Your task to perform on an android device: Open maps Image 0: 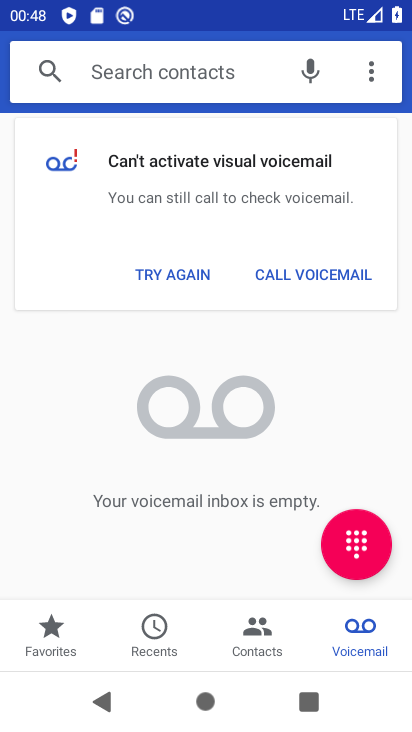
Step 0: press home button
Your task to perform on an android device: Open maps Image 1: 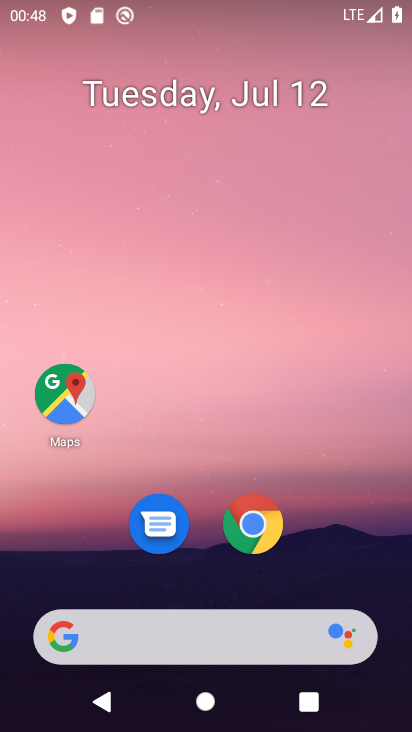
Step 1: click (71, 405)
Your task to perform on an android device: Open maps Image 2: 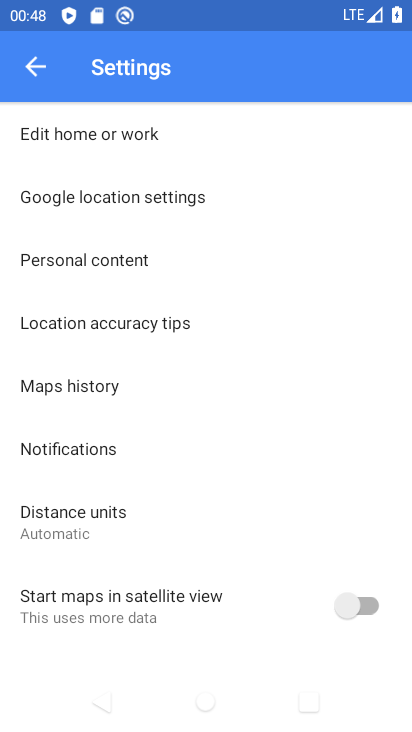
Step 2: click (41, 64)
Your task to perform on an android device: Open maps Image 3: 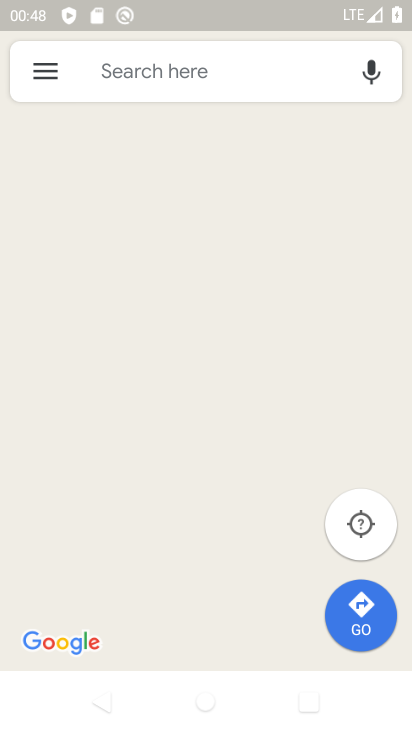
Step 3: click (109, 55)
Your task to perform on an android device: Open maps Image 4: 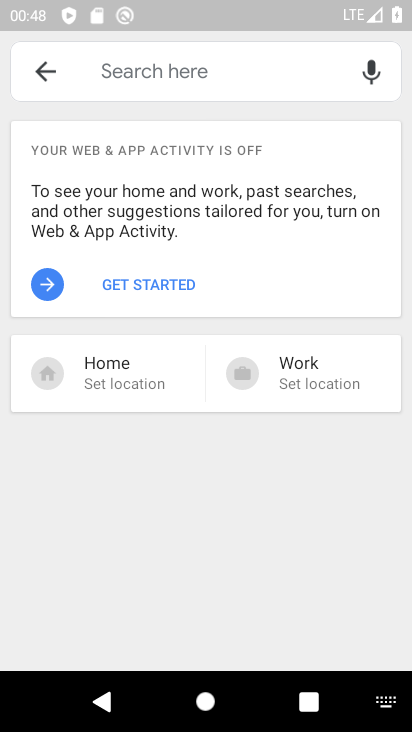
Step 4: click (42, 75)
Your task to perform on an android device: Open maps Image 5: 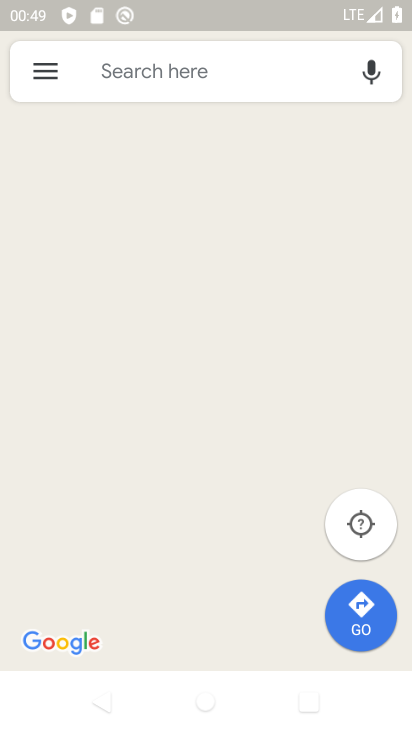
Step 5: task complete